Your task to perform on an android device: open a new tab in the chrome app Image 0: 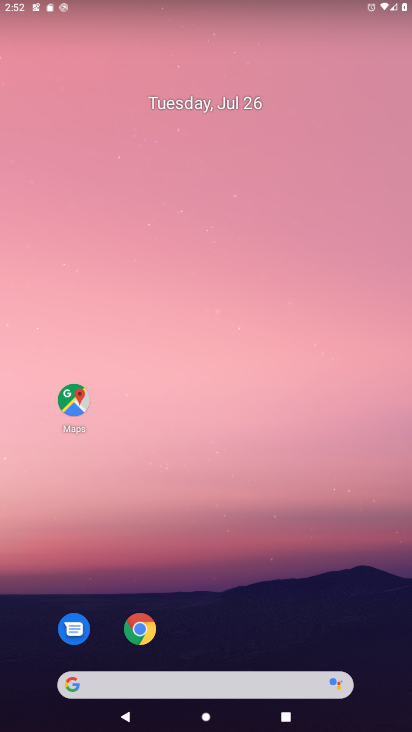
Step 0: click (126, 632)
Your task to perform on an android device: open a new tab in the chrome app Image 1: 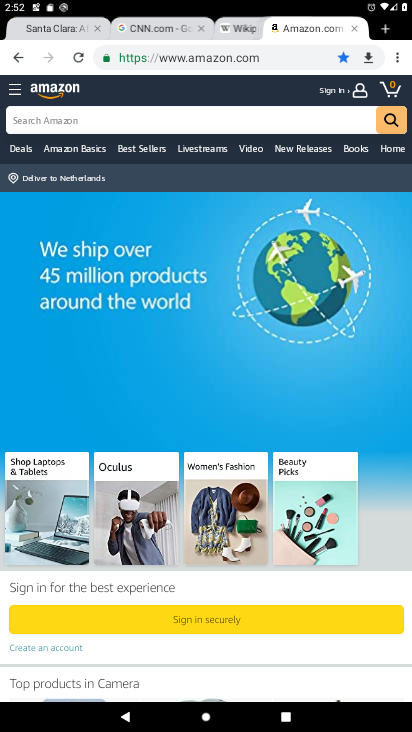
Step 1: click (380, 35)
Your task to perform on an android device: open a new tab in the chrome app Image 2: 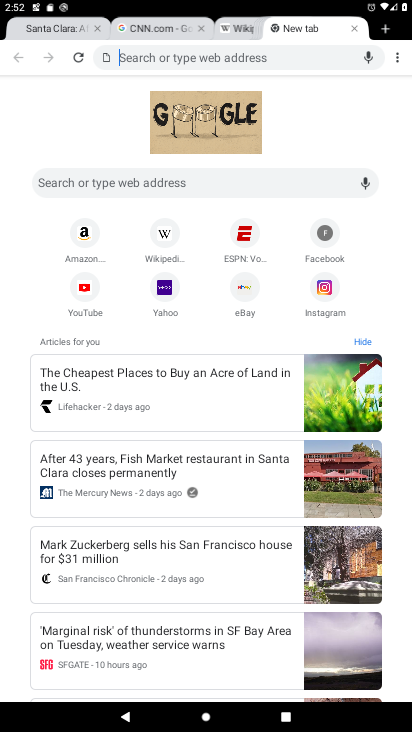
Step 2: click (379, 26)
Your task to perform on an android device: open a new tab in the chrome app Image 3: 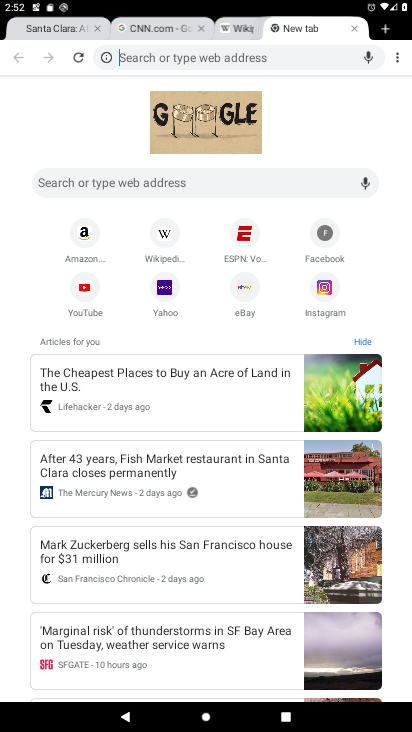
Step 3: task complete